Your task to perform on an android device: change your default location settings in chrome Image 0: 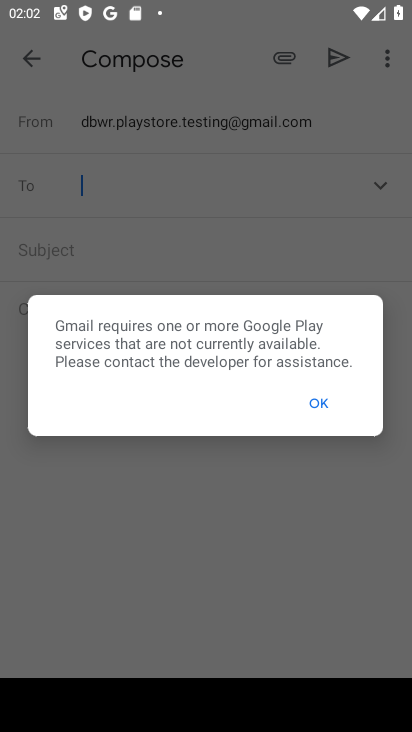
Step 0: press home button
Your task to perform on an android device: change your default location settings in chrome Image 1: 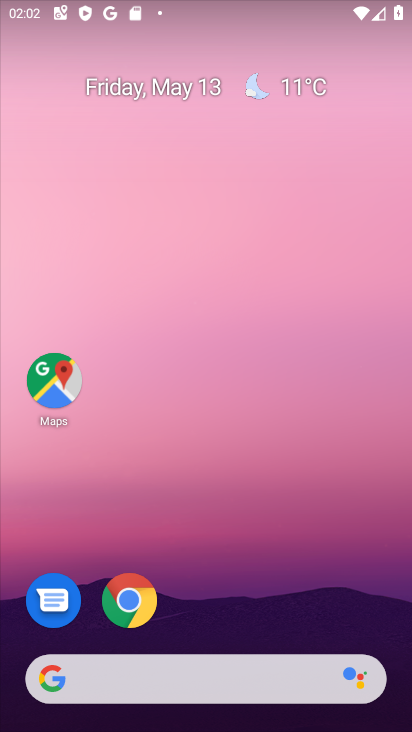
Step 1: drag from (207, 651) to (129, 98)
Your task to perform on an android device: change your default location settings in chrome Image 2: 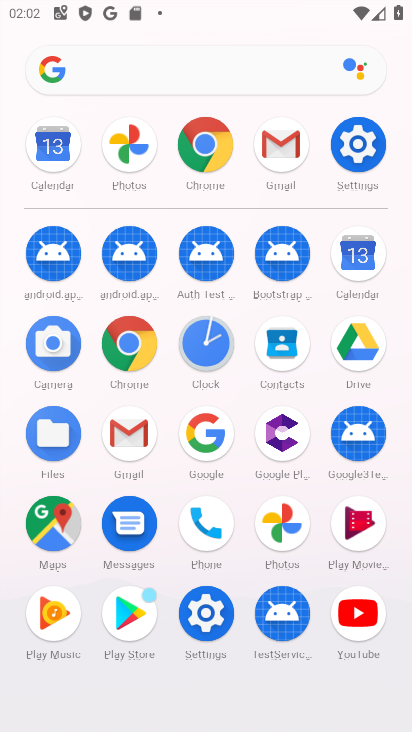
Step 2: click (208, 136)
Your task to perform on an android device: change your default location settings in chrome Image 3: 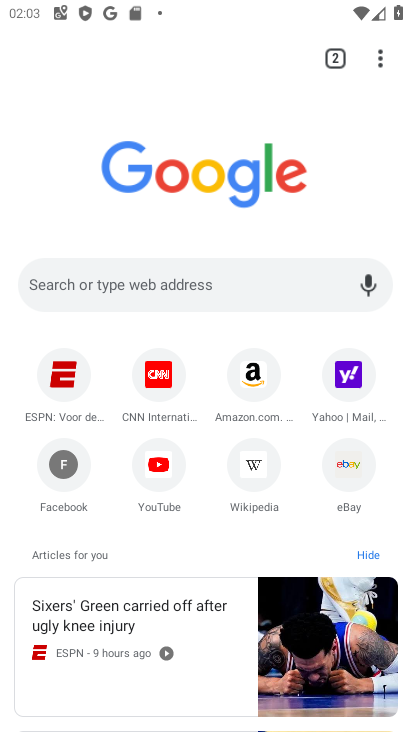
Step 3: click (380, 49)
Your task to perform on an android device: change your default location settings in chrome Image 4: 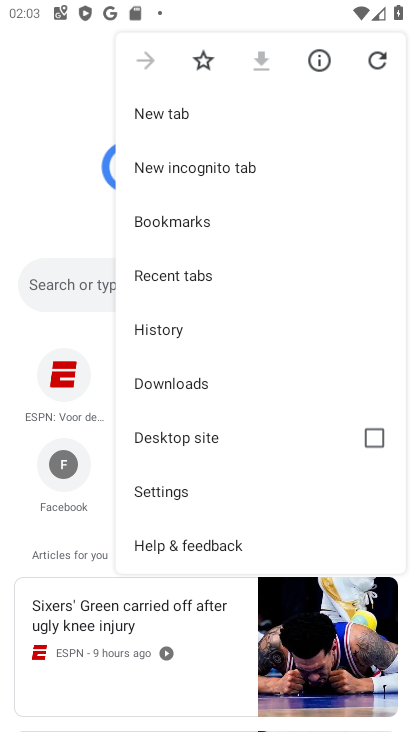
Step 4: click (182, 481)
Your task to perform on an android device: change your default location settings in chrome Image 5: 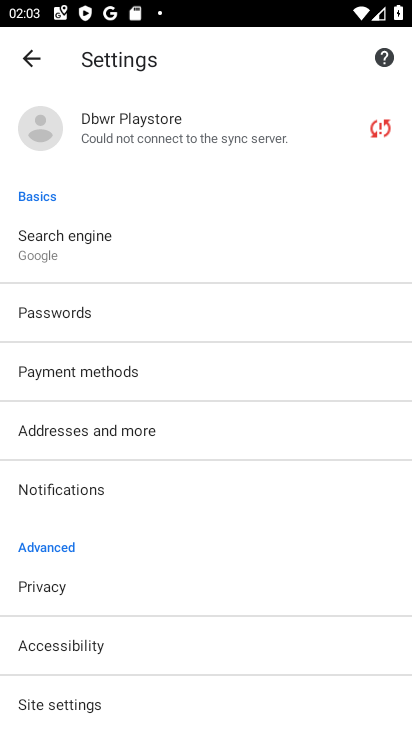
Step 5: drag from (164, 568) to (270, 138)
Your task to perform on an android device: change your default location settings in chrome Image 6: 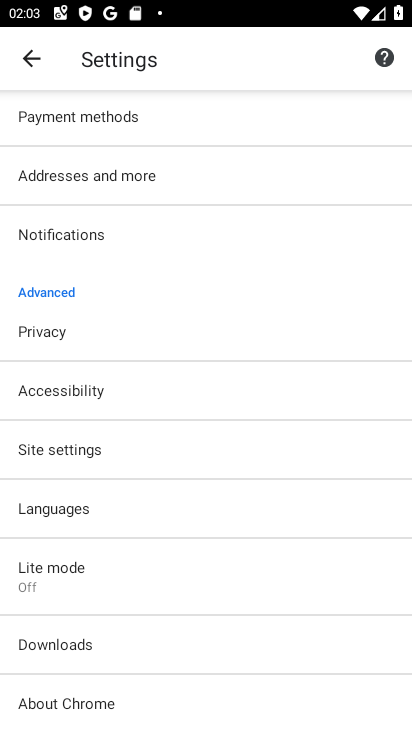
Step 6: click (103, 447)
Your task to perform on an android device: change your default location settings in chrome Image 7: 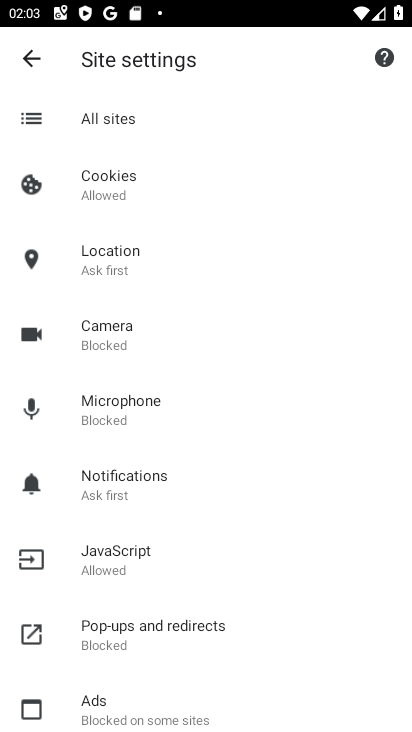
Step 7: click (178, 254)
Your task to perform on an android device: change your default location settings in chrome Image 8: 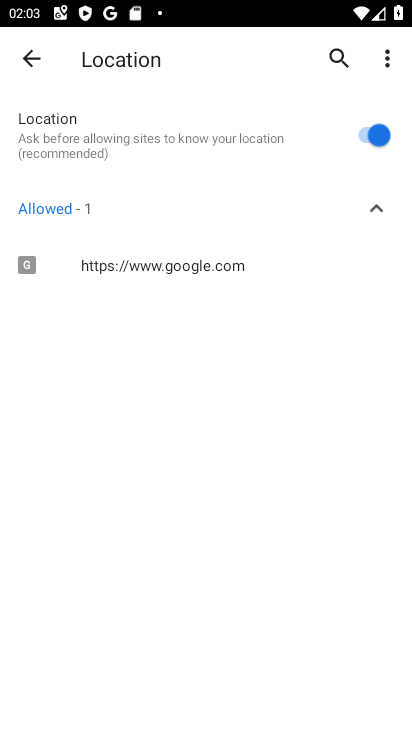
Step 8: task complete